Your task to perform on an android device: change the upload size in google photos Image 0: 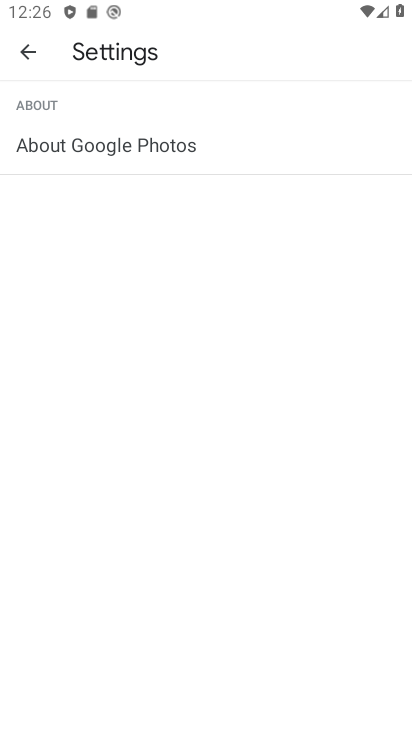
Step 0: press home button
Your task to perform on an android device: change the upload size in google photos Image 1: 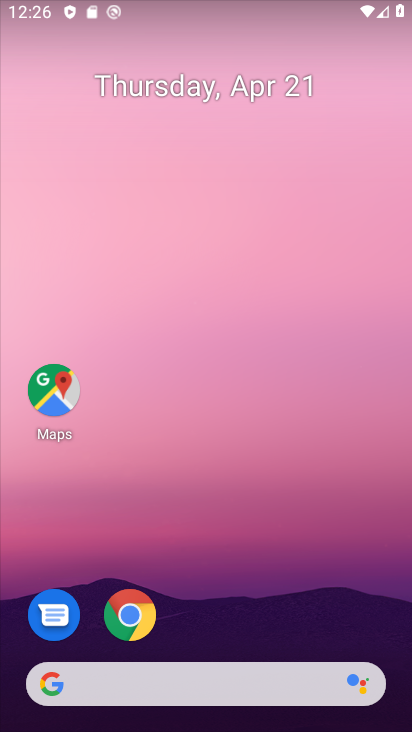
Step 1: drag from (250, 625) to (266, 0)
Your task to perform on an android device: change the upload size in google photos Image 2: 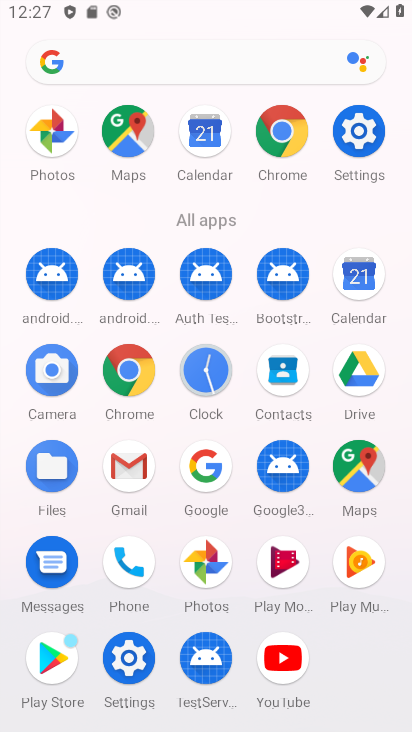
Step 2: click (212, 557)
Your task to perform on an android device: change the upload size in google photos Image 3: 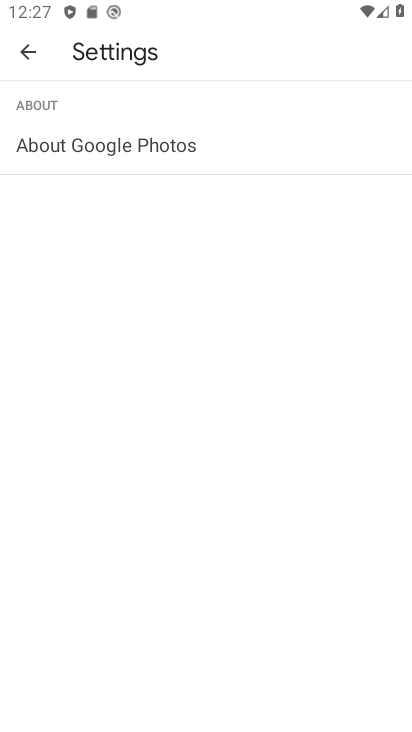
Step 3: click (31, 50)
Your task to perform on an android device: change the upload size in google photos Image 4: 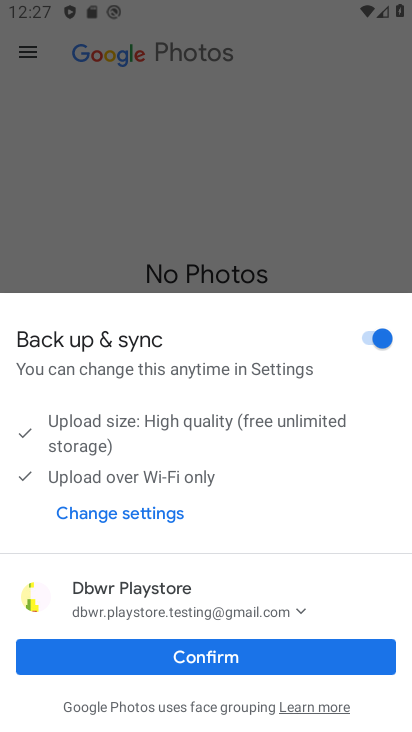
Step 4: click (237, 661)
Your task to perform on an android device: change the upload size in google photos Image 5: 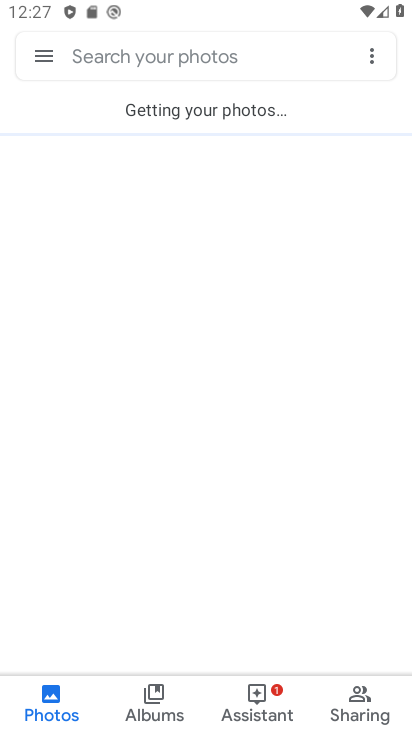
Step 5: click (37, 56)
Your task to perform on an android device: change the upload size in google photos Image 6: 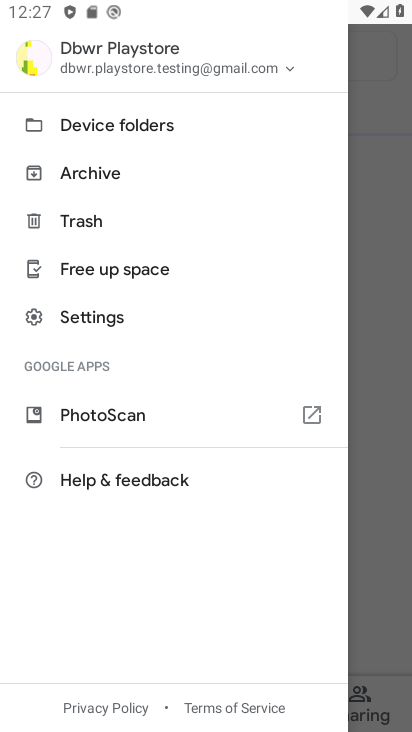
Step 6: click (111, 319)
Your task to perform on an android device: change the upload size in google photos Image 7: 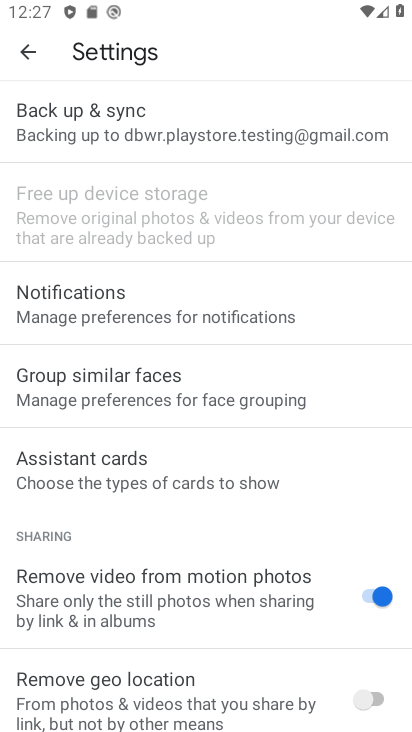
Step 7: click (180, 134)
Your task to perform on an android device: change the upload size in google photos Image 8: 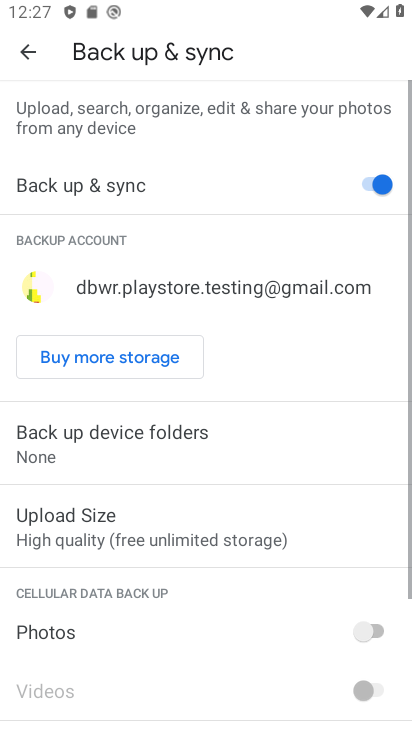
Step 8: click (101, 530)
Your task to perform on an android device: change the upload size in google photos Image 9: 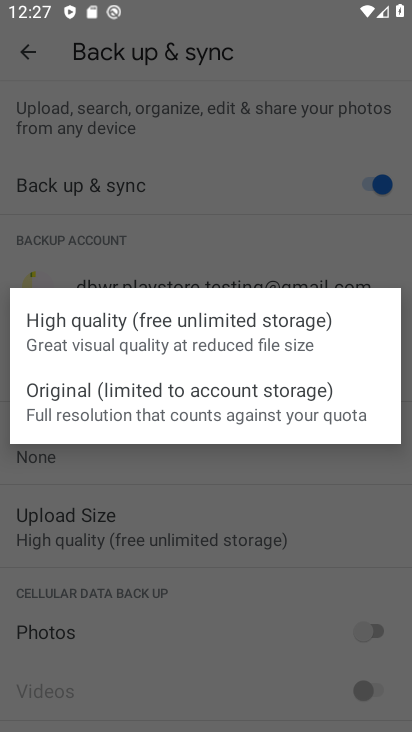
Step 9: click (141, 385)
Your task to perform on an android device: change the upload size in google photos Image 10: 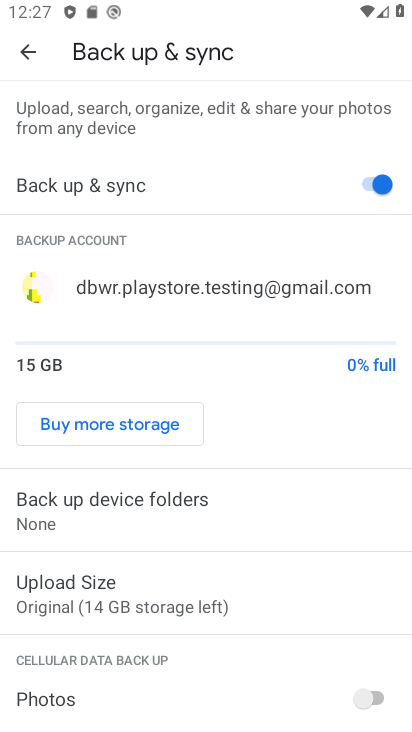
Step 10: task complete